Your task to perform on an android device: toggle data saver in the chrome app Image 0: 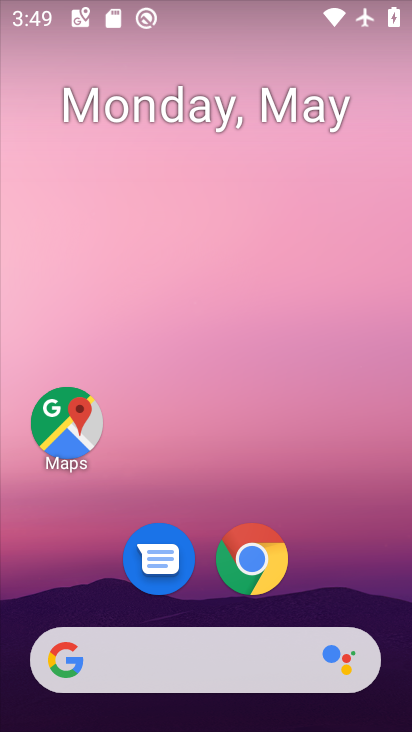
Step 0: click (248, 569)
Your task to perform on an android device: toggle data saver in the chrome app Image 1: 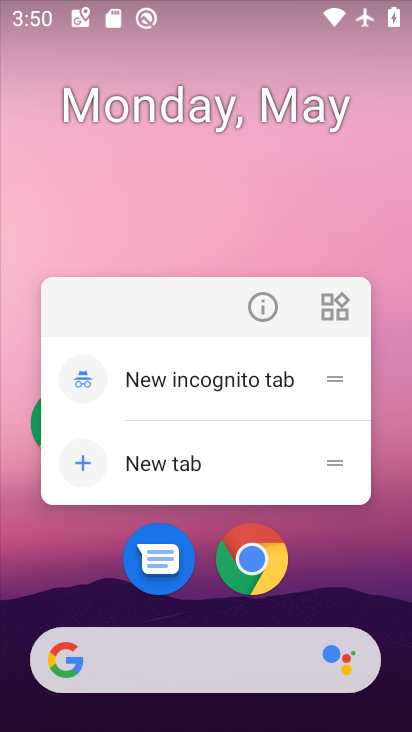
Step 1: click (253, 576)
Your task to perform on an android device: toggle data saver in the chrome app Image 2: 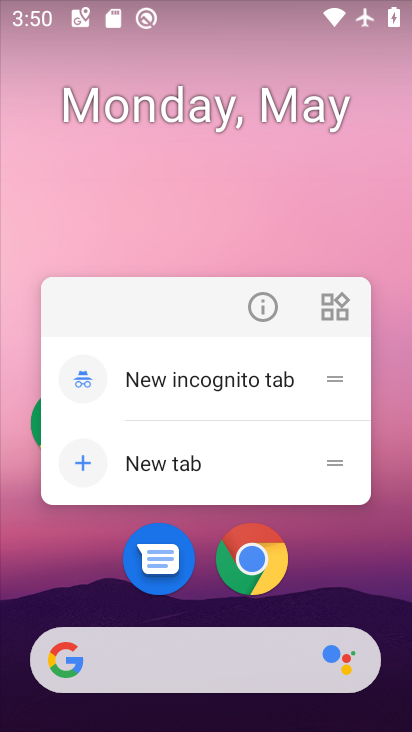
Step 2: click (255, 552)
Your task to perform on an android device: toggle data saver in the chrome app Image 3: 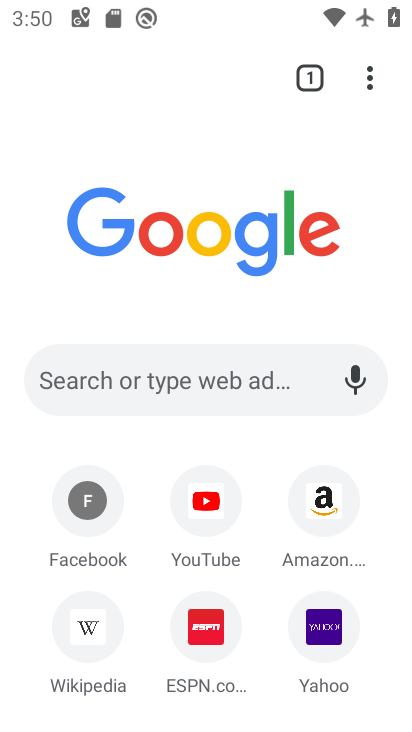
Step 3: click (376, 83)
Your task to perform on an android device: toggle data saver in the chrome app Image 4: 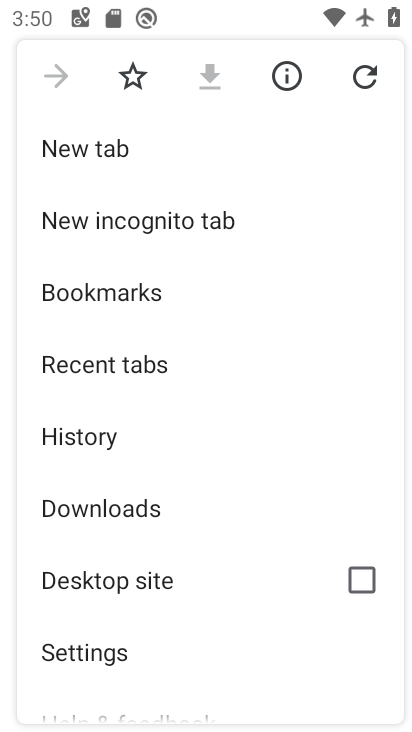
Step 4: click (137, 660)
Your task to perform on an android device: toggle data saver in the chrome app Image 5: 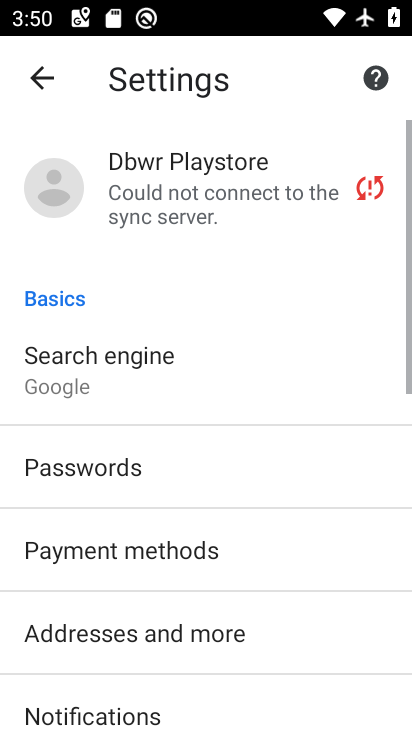
Step 5: drag from (145, 639) to (173, 326)
Your task to perform on an android device: toggle data saver in the chrome app Image 6: 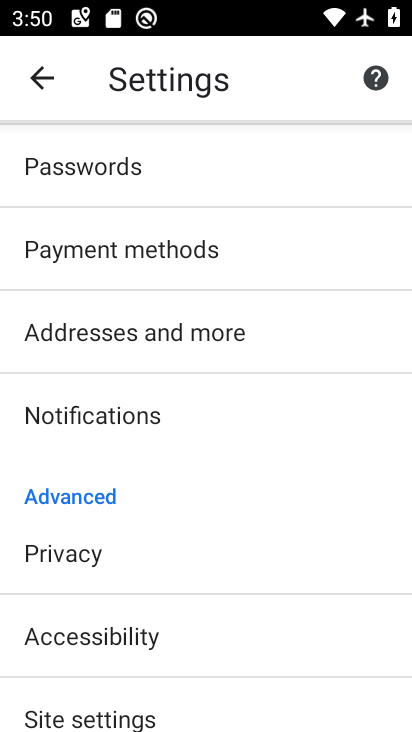
Step 6: drag from (130, 666) to (177, 358)
Your task to perform on an android device: toggle data saver in the chrome app Image 7: 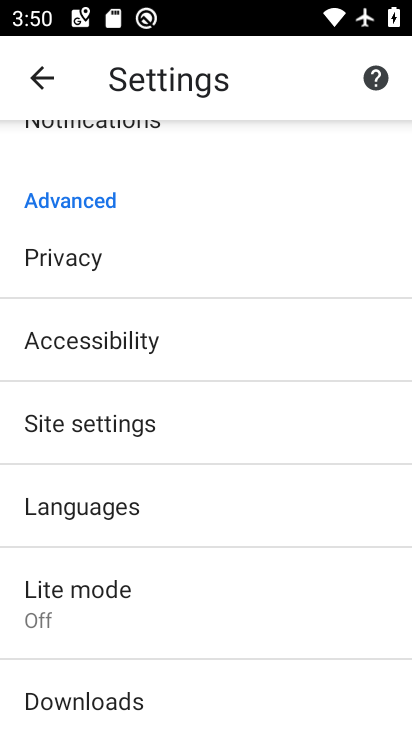
Step 7: click (76, 614)
Your task to perform on an android device: toggle data saver in the chrome app Image 8: 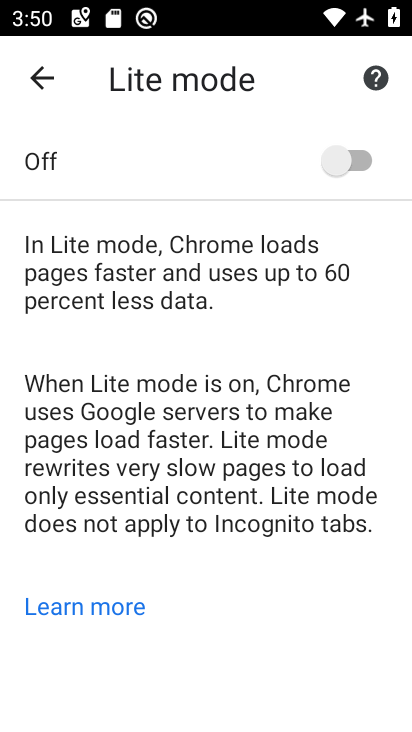
Step 8: click (369, 160)
Your task to perform on an android device: toggle data saver in the chrome app Image 9: 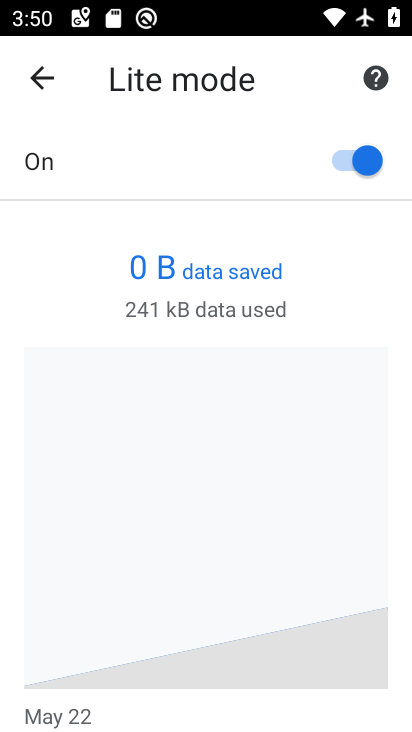
Step 9: task complete